Your task to perform on an android device: Go to CNN.com Image 0: 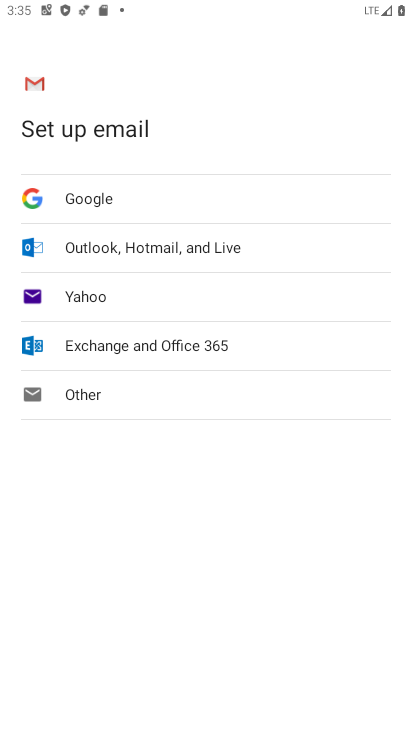
Step 0: press home button
Your task to perform on an android device: Go to CNN.com Image 1: 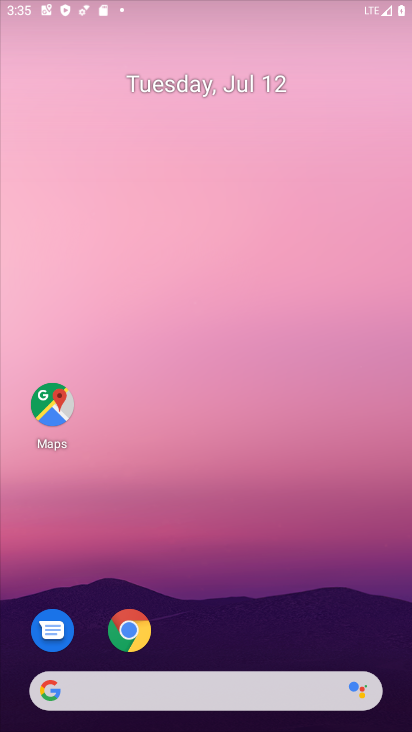
Step 1: drag from (312, 720) to (374, 12)
Your task to perform on an android device: Go to CNN.com Image 2: 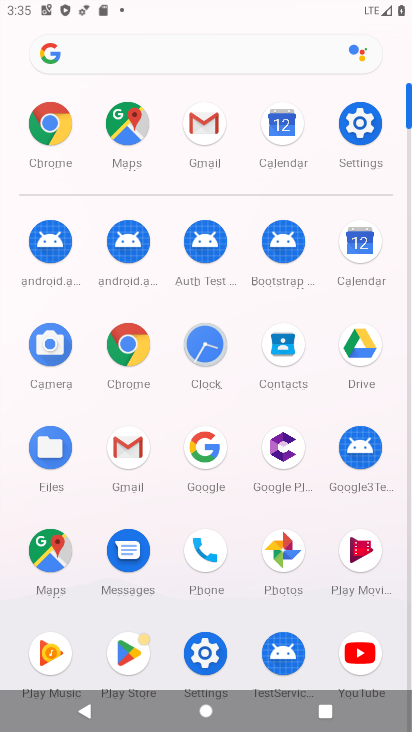
Step 2: click (132, 342)
Your task to perform on an android device: Go to CNN.com Image 3: 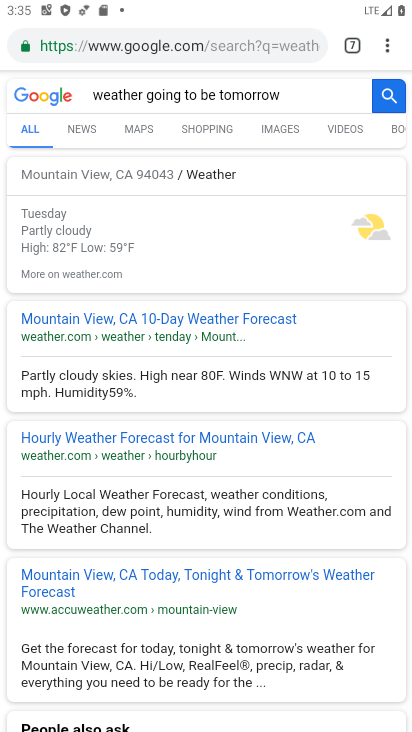
Step 3: click (211, 49)
Your task to perform on an android device: Go to CNN.com Image 4: 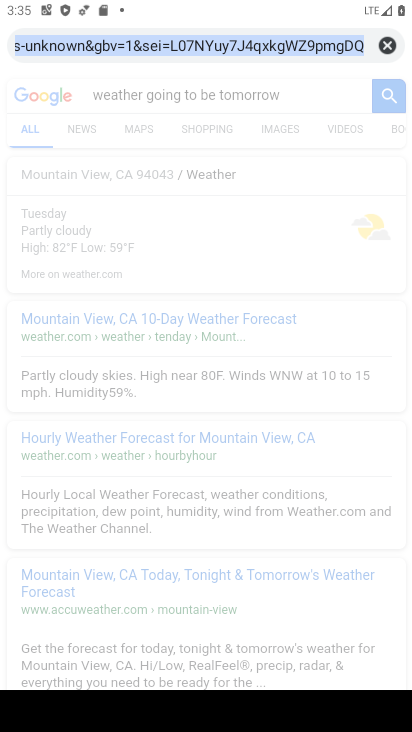
Step 4: type "cnn.com"
Your task to perform on an android device: Go to CNN.com Image 5: 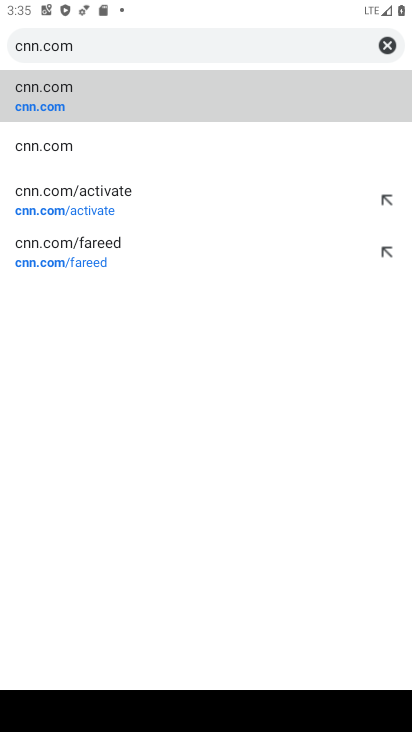
Step 5: click (170, 90)
Your task to perform on an android device: Go to CNN.com Image 6: 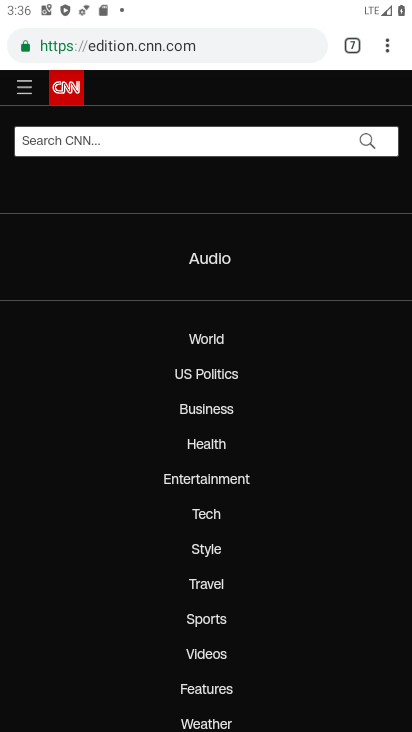
Step 6: task complete